Your task to perform on an android device: Go to settings Image 0: 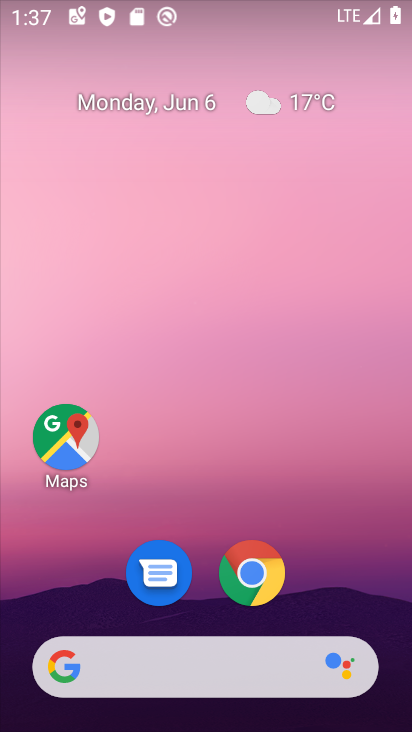
Step 0: drag from (378, 595) to (355, 128)
Your task to perform on an android device: Go to settings Image 1: 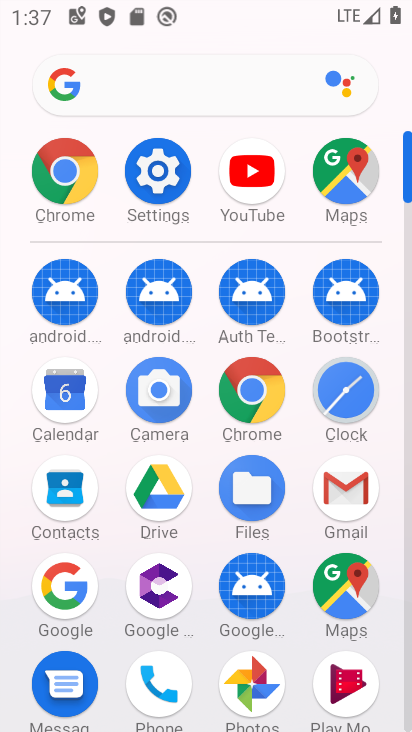
Step 1: click (167, 178)
Your task to perform on an android device: Go to settings Image 2: 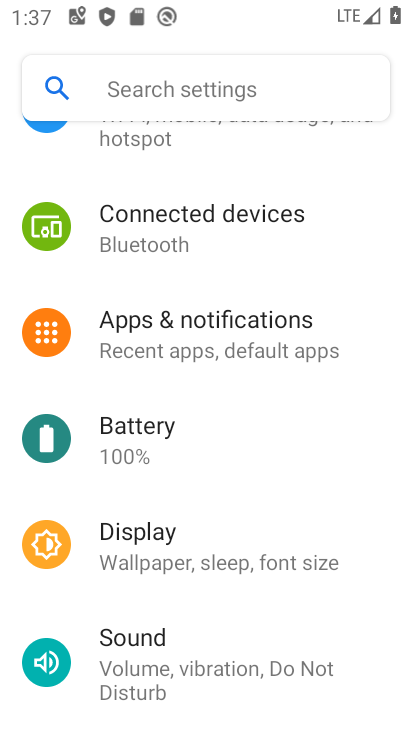
Step 2: task complete